Your task to perform on an android device: Open the map Image 0: 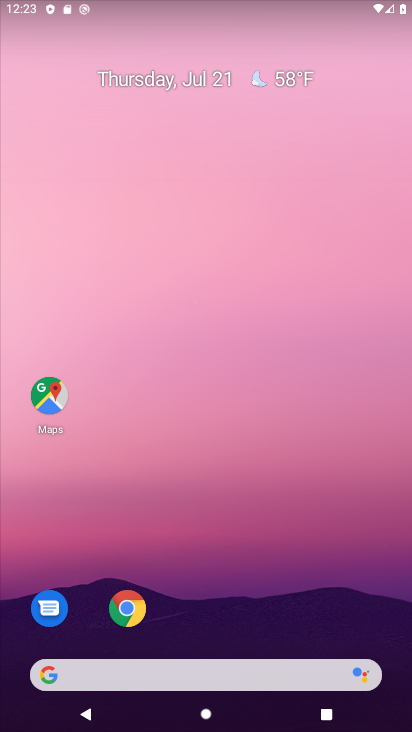
Step 0: press home button
Your task to perform on an android device: Open the map Image 1: 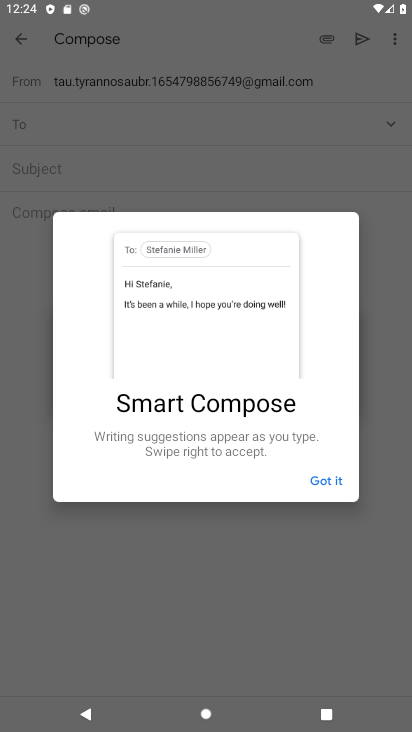
Step 1: press home button
Your task to perform on an android device: Open the map Image 2: 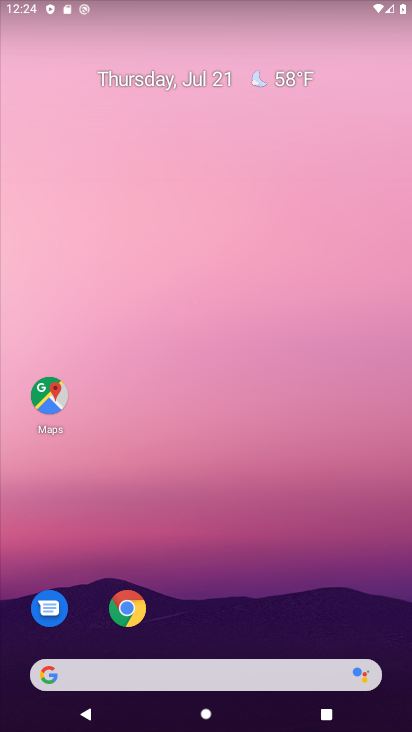
Step 2: click (41, 397)
Your task to perform on an android device: Open the map Image 3: 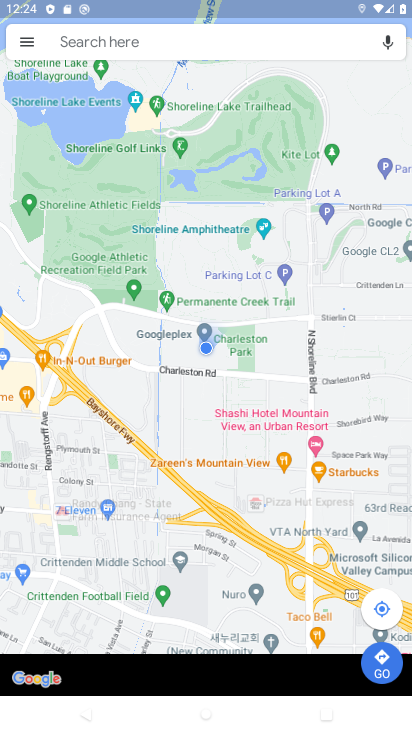
Step 3: task complete